Your task to perform on an android device: Open the web browser Image 0: 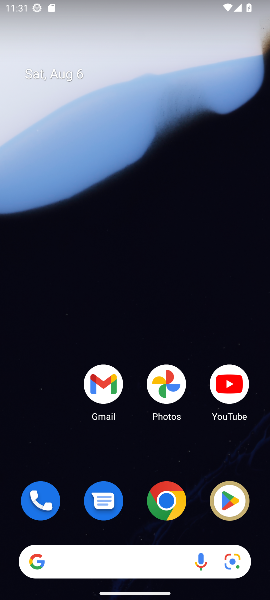
Step 0: click (171, 506)
Your task to perform on an android device: Open the web browser Image 1: 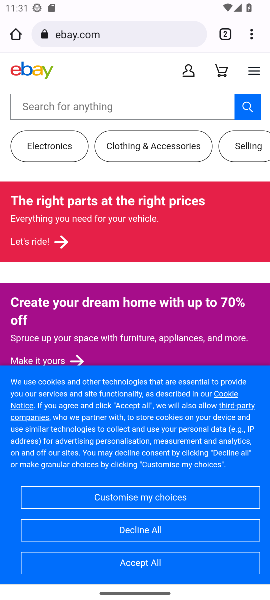
Step 1: task complete